Your task to perform on an android device: Go to Amazon Image 0: 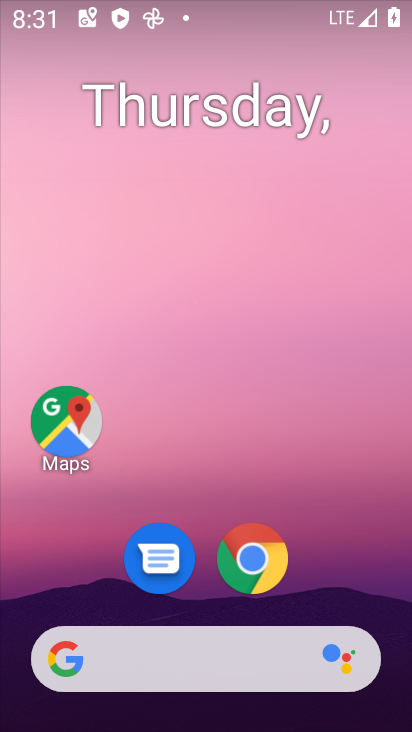
Step 0: click (251, 566)
Your task to perform on an android device: Go to Amazon Image 1: 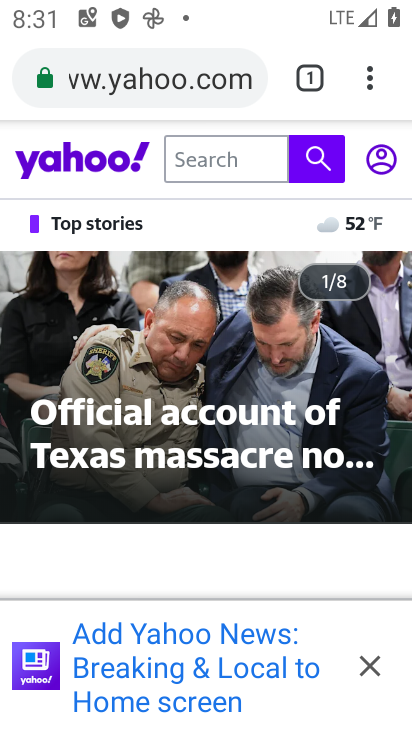
Step 1: click (314, 72)
Your task to perform on an android device: Go to Amazon Image 2: 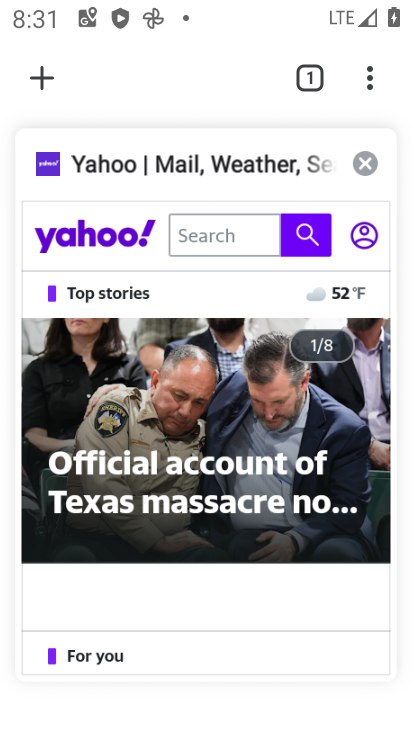
Step 2: click (364, 160)
Your task to perform on an android device: Go to Amazon Image 3: 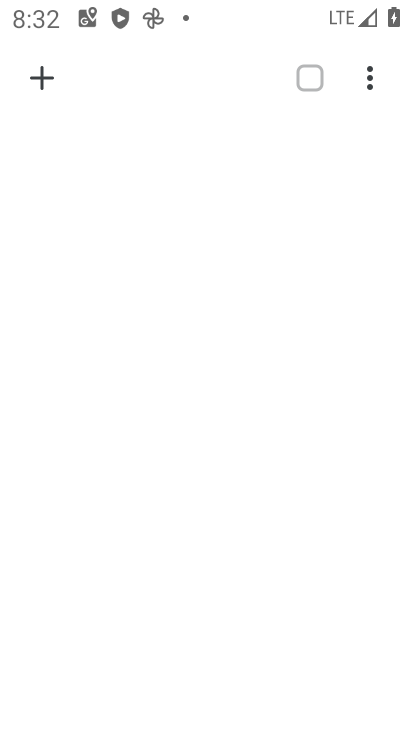
Step 3: click (41, 72)
Your task to perform on an android device: Go to Amazon Image 4: 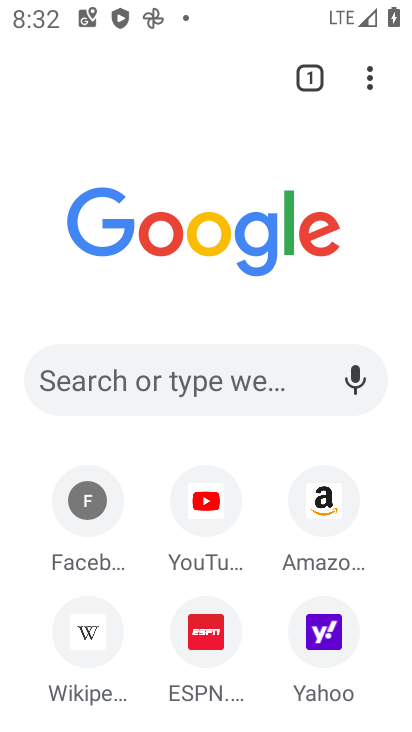
Step 4: click (327, 504)
Your task to perform on an android device: Go to Amazon Image 5: 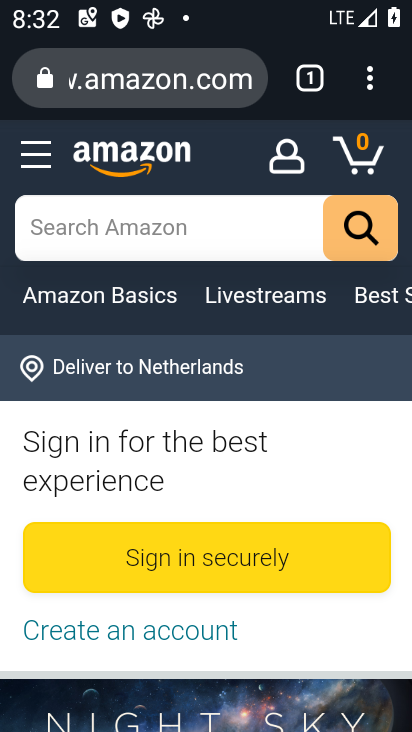
Step 5: task complete